Your task to perform on an android device: See recent photos Image 0: 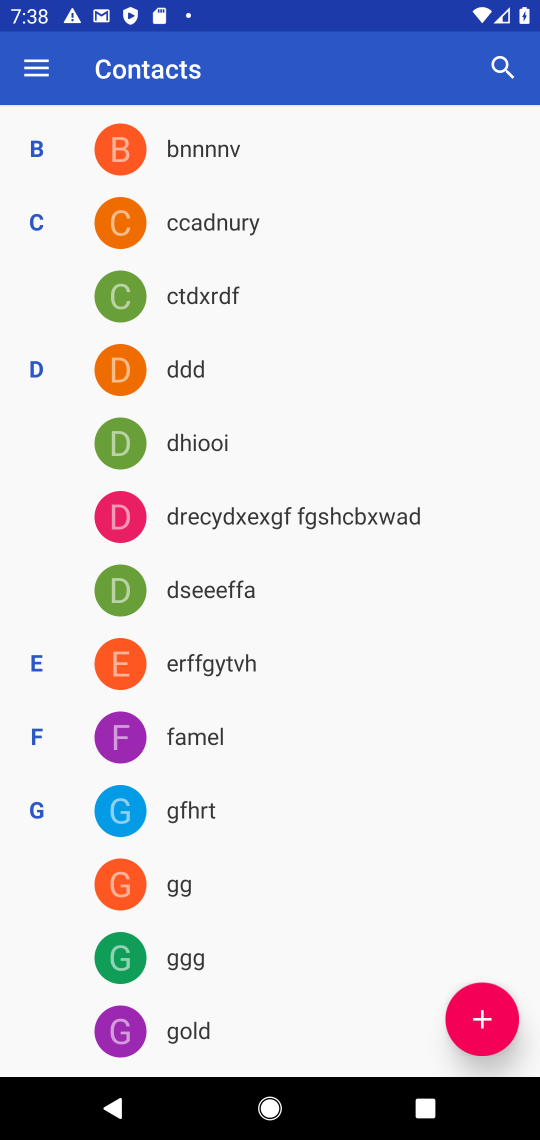
Step 0: press home button
Your task to perform on an android device: See recent photos Image 1: 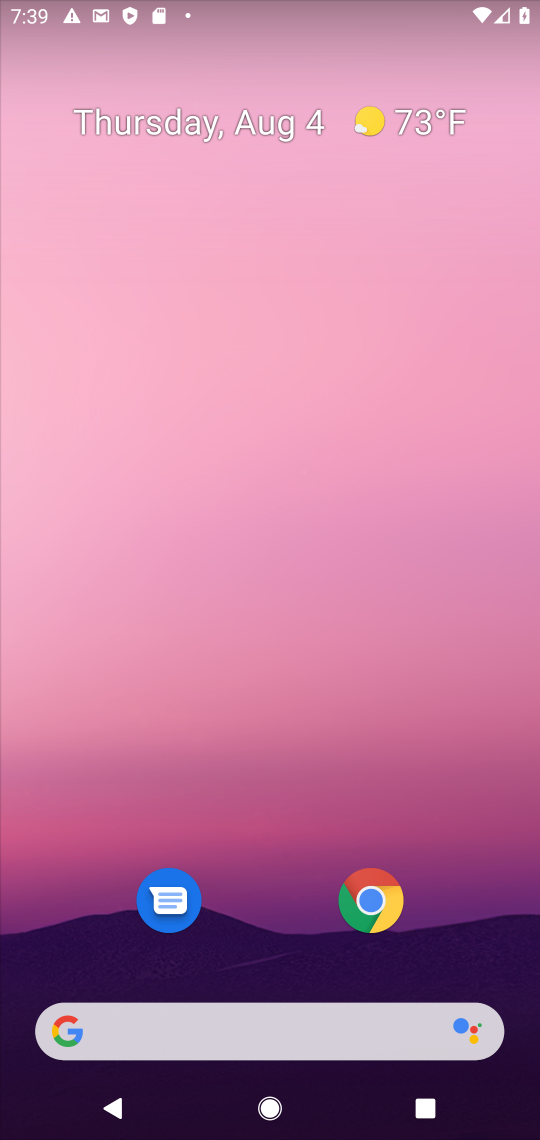
Step 1: drag from (274, 1046) to (484, 184)
Your task to perform on an android device: See recent photos Image 2: 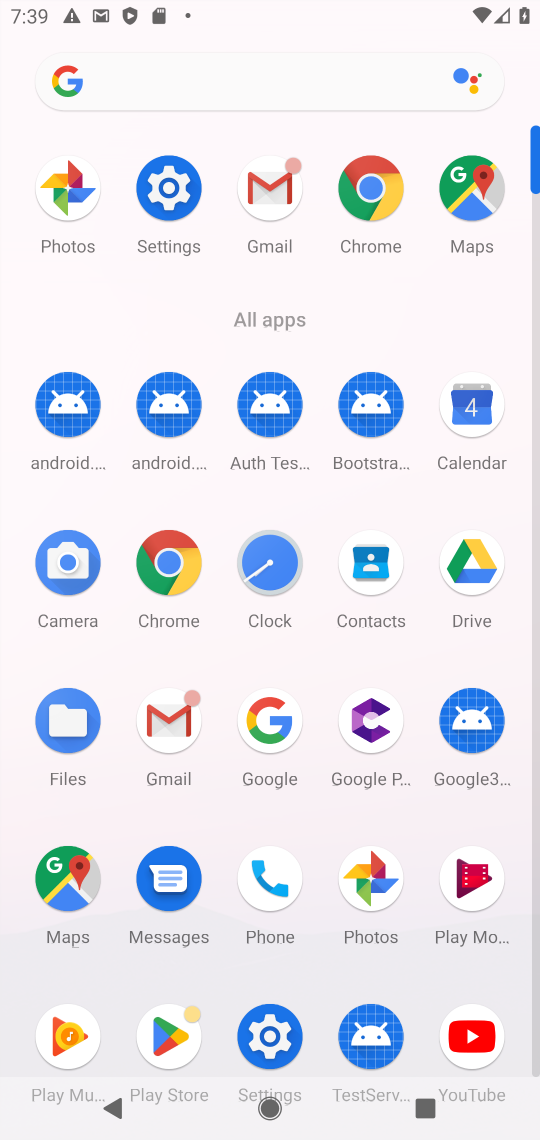
Step 2: click (376, 877)
Your task to perform on an android device: See recent photos Image 3: 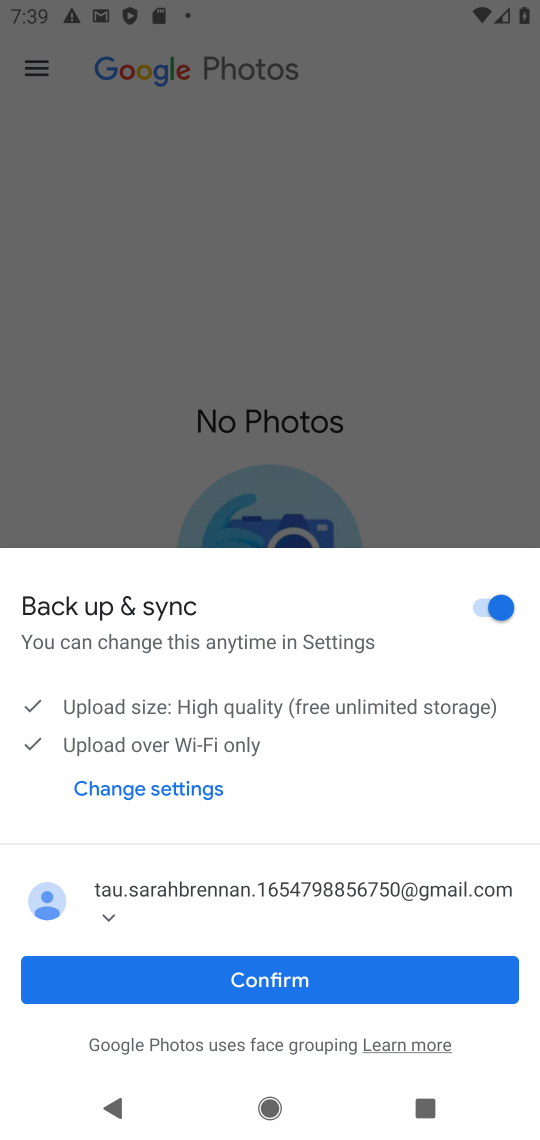
Step 3: click (325, 978)
Your task to perform on an android device: See recent photos Image 4: 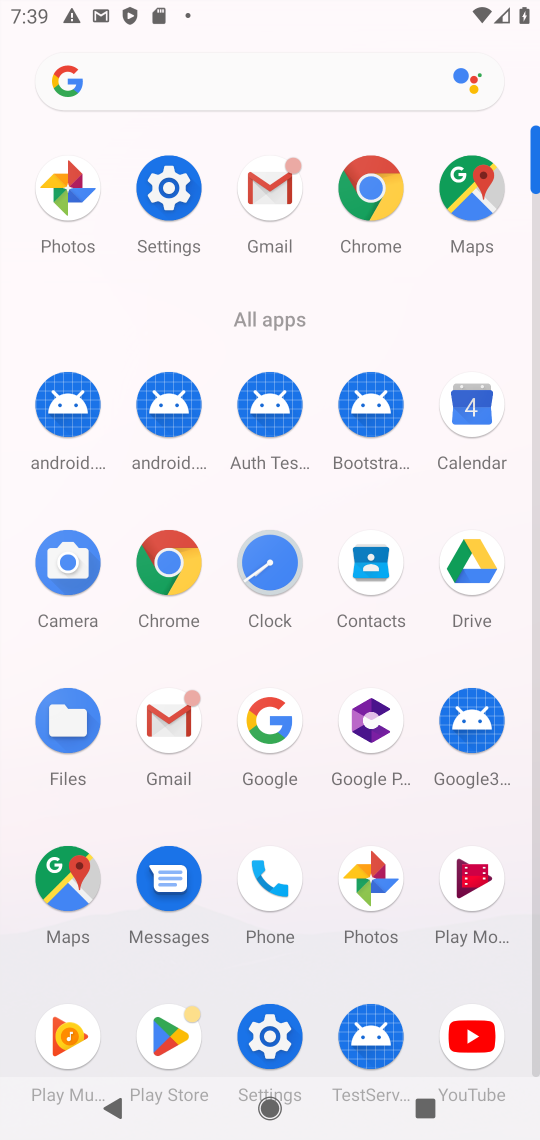
Step 4: click (365, 880)
Your task to perform on an android device: See recent photos Image 5: 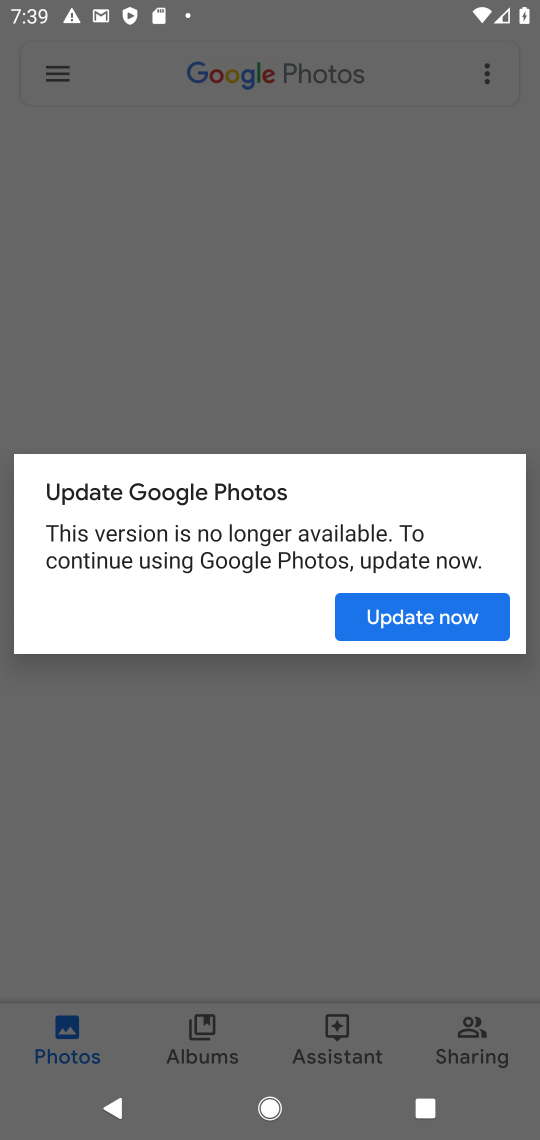
Step 5: click (437, 611)
Your task to perform on an android device: See recent photos Image 6: 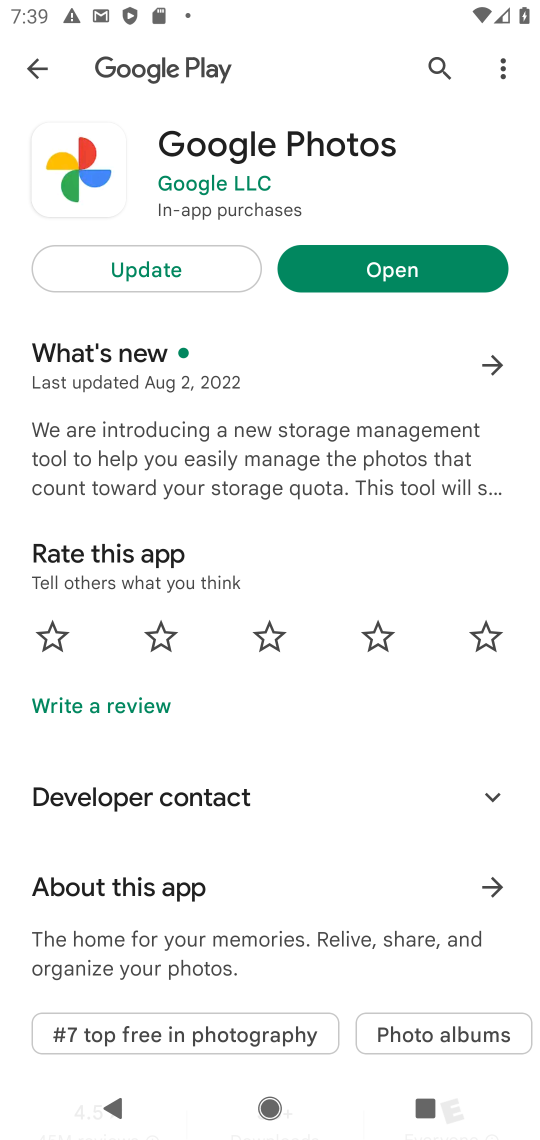
Step 6: click (192, 268)
Your task to perform on an android device: See recent photos Image 7: 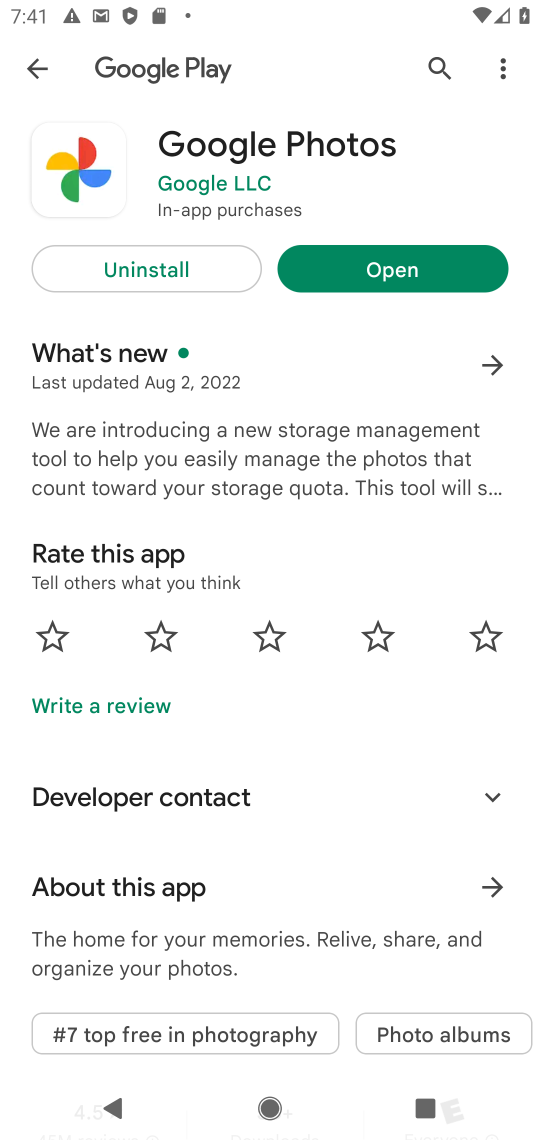
Step 7: click (404, 268)
Your task to perform on an android device: See recent photos Image 8: 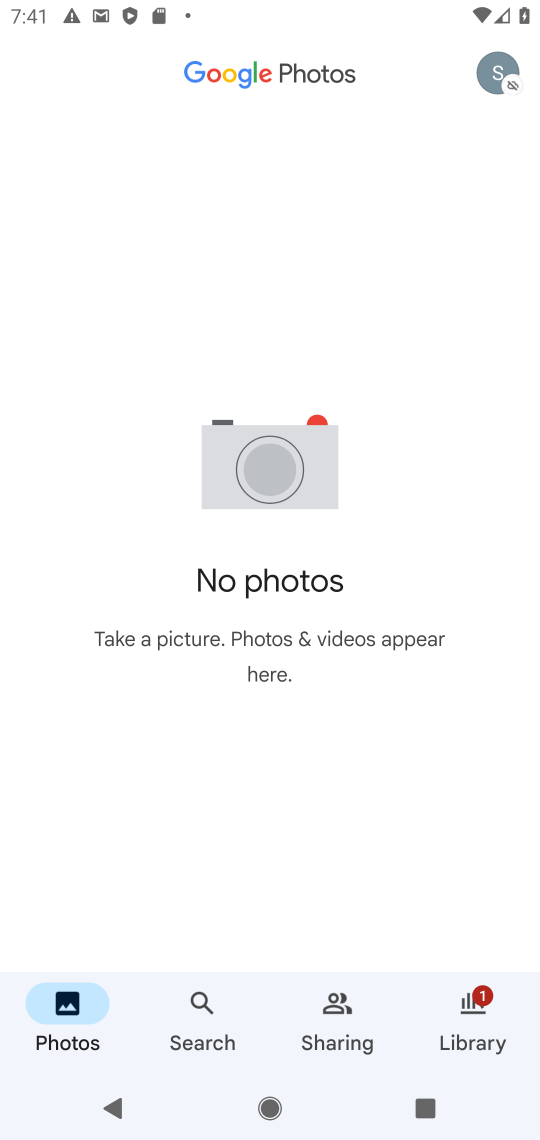
Step 8: click (207, 1007)
Your task to perform on an android device: See recent photos Image 9: 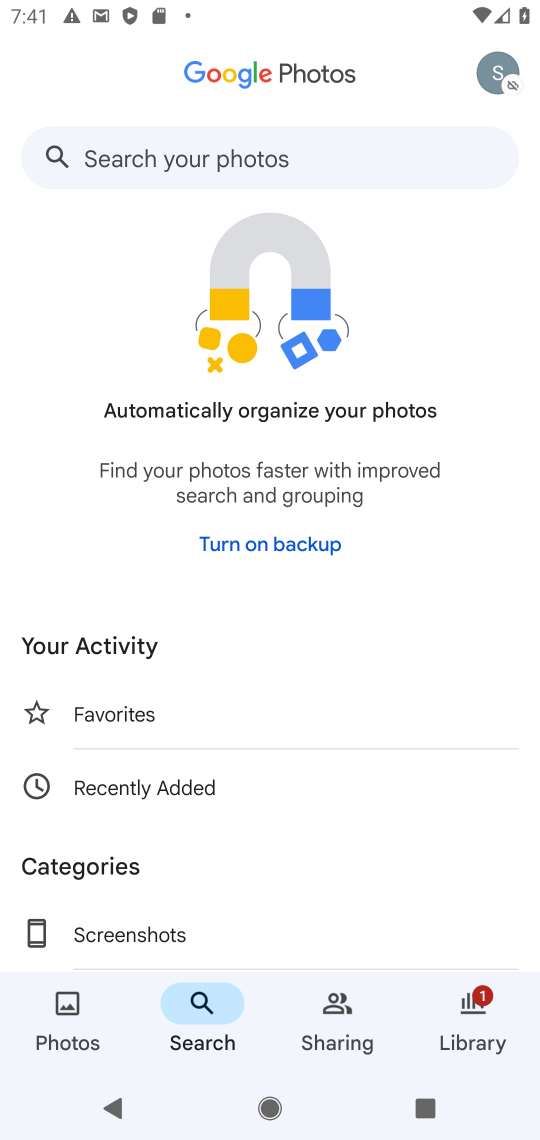
Step 9: click (188, 789)
Your task to perform on an android device: See recent photos Image 10: 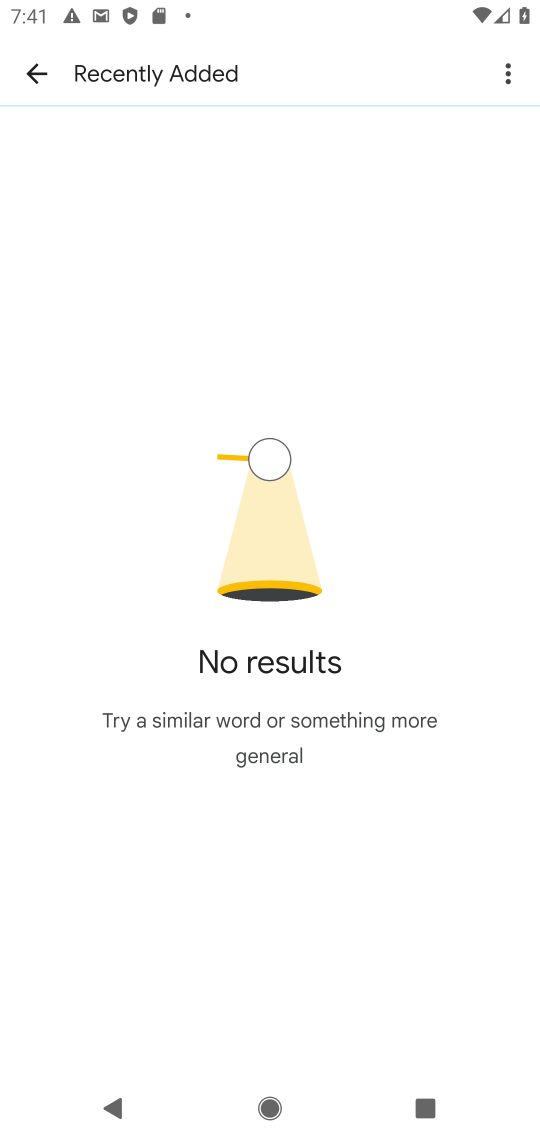
Step 10: task complete